Your task to perform on an android device: open app "TextNow: Call + Text Unlimited" (install if not already installed) and go to login screen Image 0: 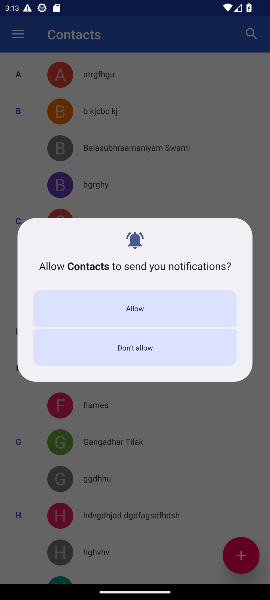
Step 0: click (119, 310)
Your task to perform on an android device: open app "TextNow: Call + Text Unlimited" (install if not already installed) and go to login screen Image 1: 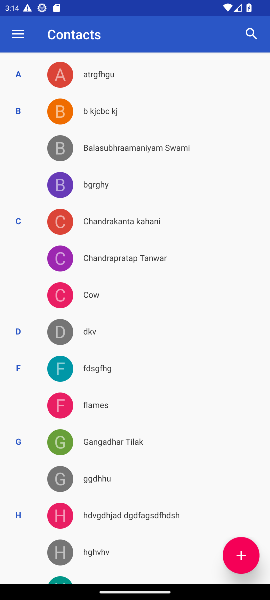
Step 1: press home button
Your task to perform on an android device: open app "TextNow: Call + Text Unlimited" (install if not already installed) and go to login screen Image 2: 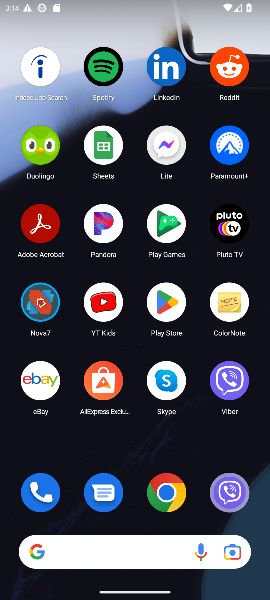
Step 2: click (156, 323)
Your task to perform on an android device: open app "TextNow: Call + Text Unlimited" (install if not already installed) and go to login screen Image 3: 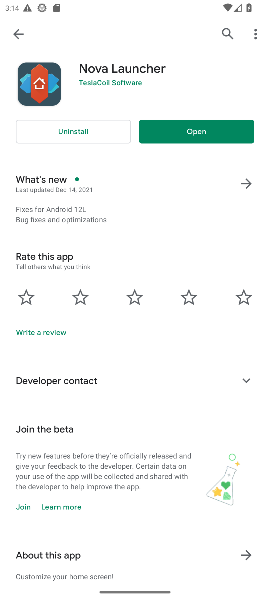
Step 3: click (230, 31)
Your task to perform on an android device: open app "TextNow: Call + Text Unlimited" (install if not already installed) and go to login screen Image 4: 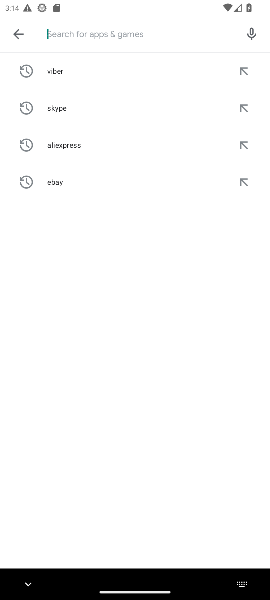
Step 4: type "textnow"
Your task to perform on an android device: open app "TextNow: Call + Text Unlimited" (install if not already installed) and go to login screen Image 5: 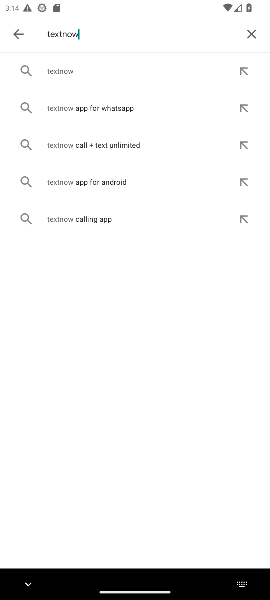
Step 5: click (87, 78)
Your task to perform on an android device: open app "TextNow: Call + Text Unlimited" (install if not already installed) and go to login screen Image 6: 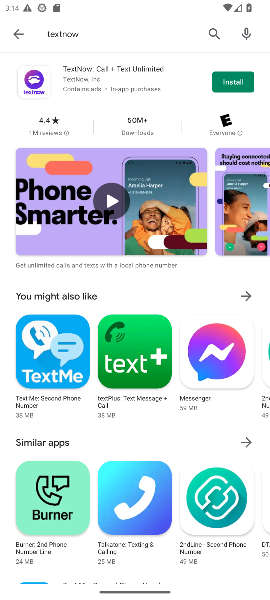
Step 6: click (220, 87)
Your task to perform on an android device: open app "TextNow: Call + Text Unlimited" (install if not already installed) and go to login screen Image 7: 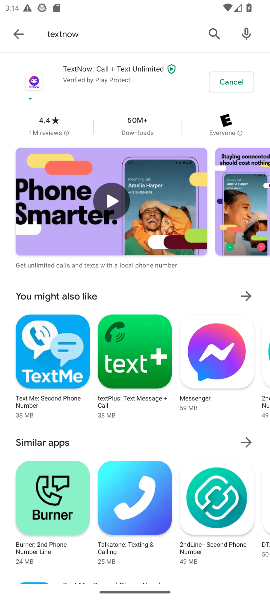
Step 7: task complete